Your task to perform on an android device: Open the stopwatch Image 0: 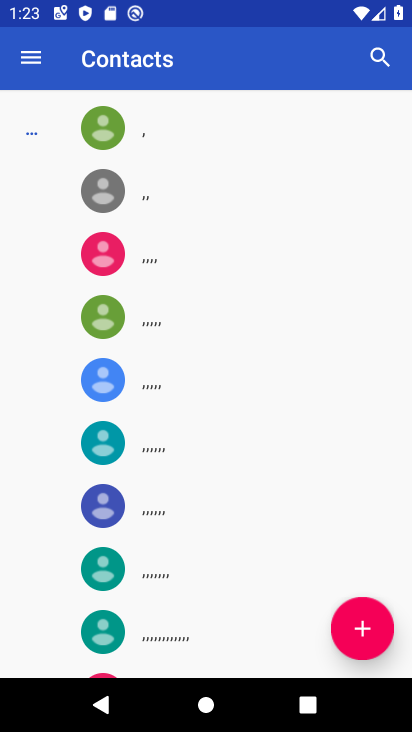
Step 0: press home button
Your task to perform on an android device: Open the stopwatch Image 1: 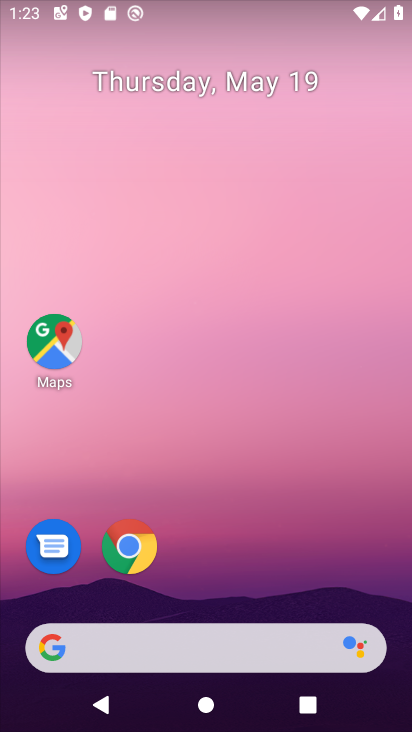
Step 1: drag from (163, 609) to (194, 180)
Your task to perform on an android device: Open the stopwatch Image 2: 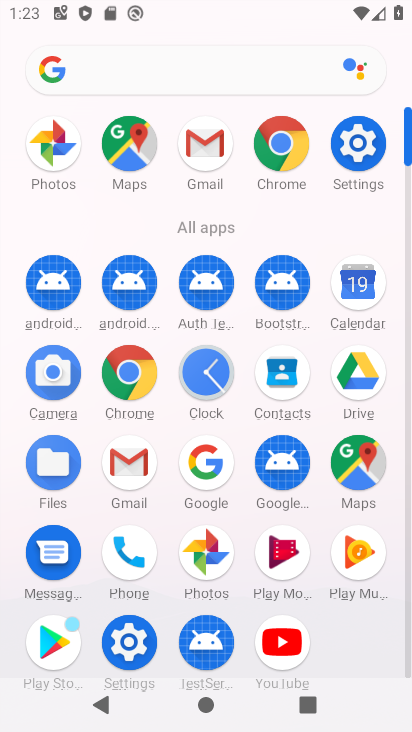
Step 2: click (212, 376)
Your task to perform on an android device: Open the stopwatch Image 3: 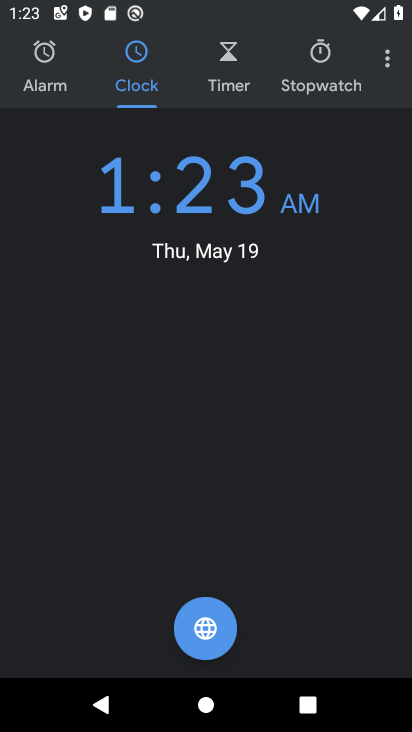
Step 3: click (322, 69)
Your task to perform on an android device: Open the stopwatch Image 4: 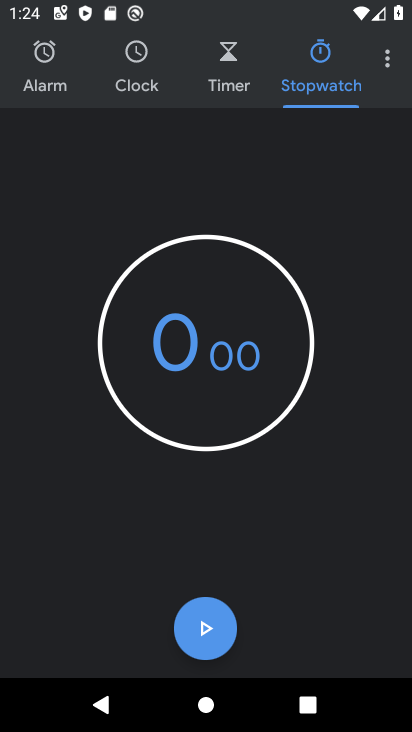
Step 4: task complete